Your task to perform on an android device: Open the calendar app, open the side menu, and click the "Day" option Image 0: 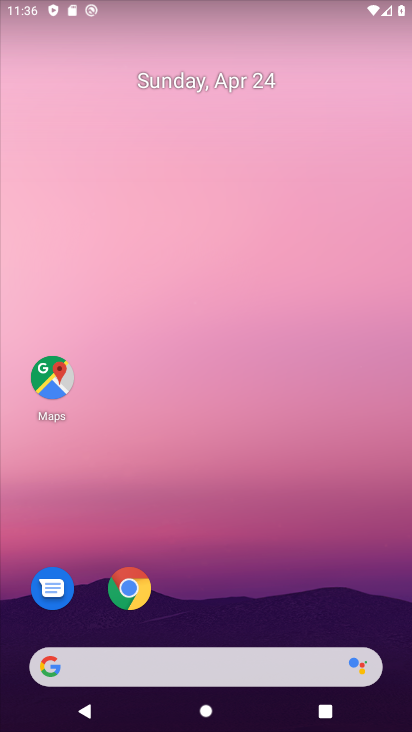
Step 0: drag from (246, 578) to (231, 67)
Your task to perform on an android device: Open the calendar app, open the side menu, and click the "Day" option Image 1: 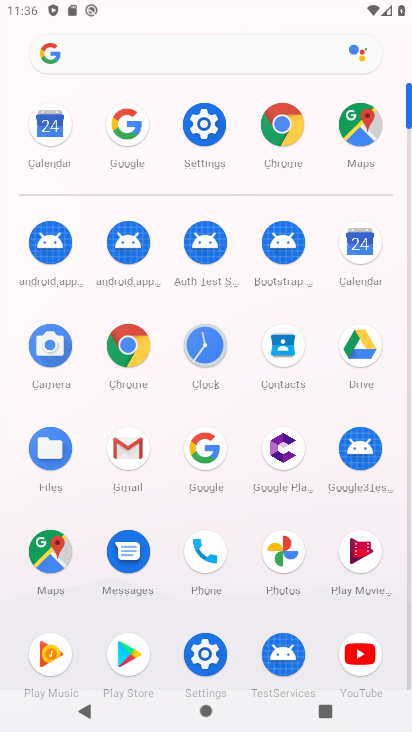
Step 1: click (53, 129)
Your task to perform on an android device: Open the calendar app, open the side menu, and click the "Day" option Image 2: 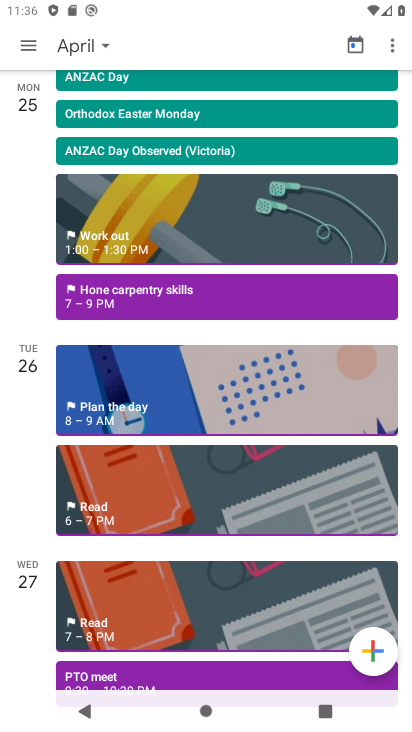
Step 2: click (25, 41)
Your task to perform on an android device: Open the calendar app, open the side menu, and click the "Day" option Image 3: 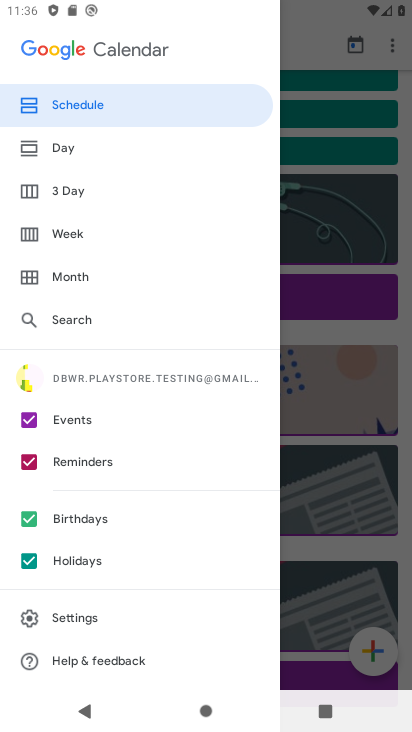
Step 3: click (77, 154)
Your task to perform on an android device: Open the calendar app, open the side menu, and click the "Day" option Image 4: 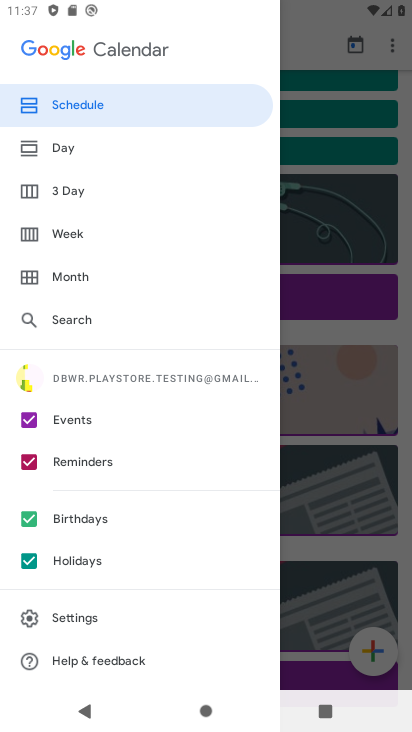
Step 4: click (77, 154)
Your task to perform on an android device: Open the calendar app, open the side menu, and click the "Day" option Image 5: 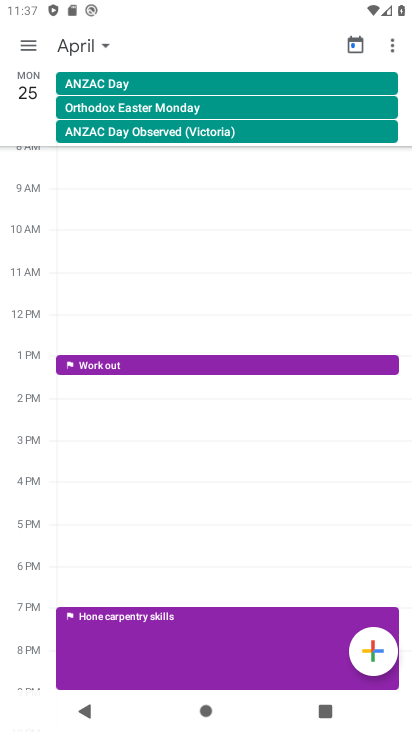
Step 5: task complete